Your task to perform on an android device: Search for Mexican restaurants on Maps Image 0: 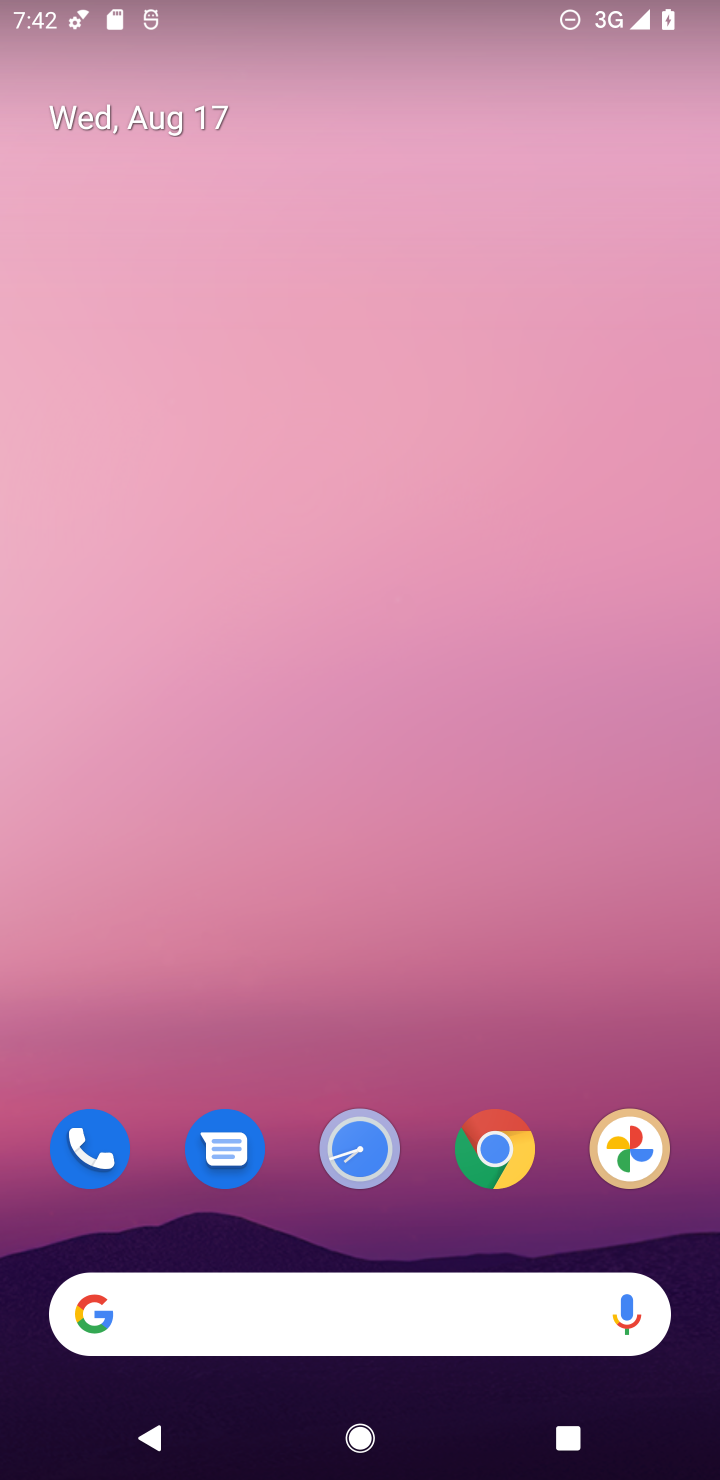
Step 0: drag from (434, 1230) to (376, 369)
Your task to perform on an android device: Search for Mexican restaurants on Maps Image 1: 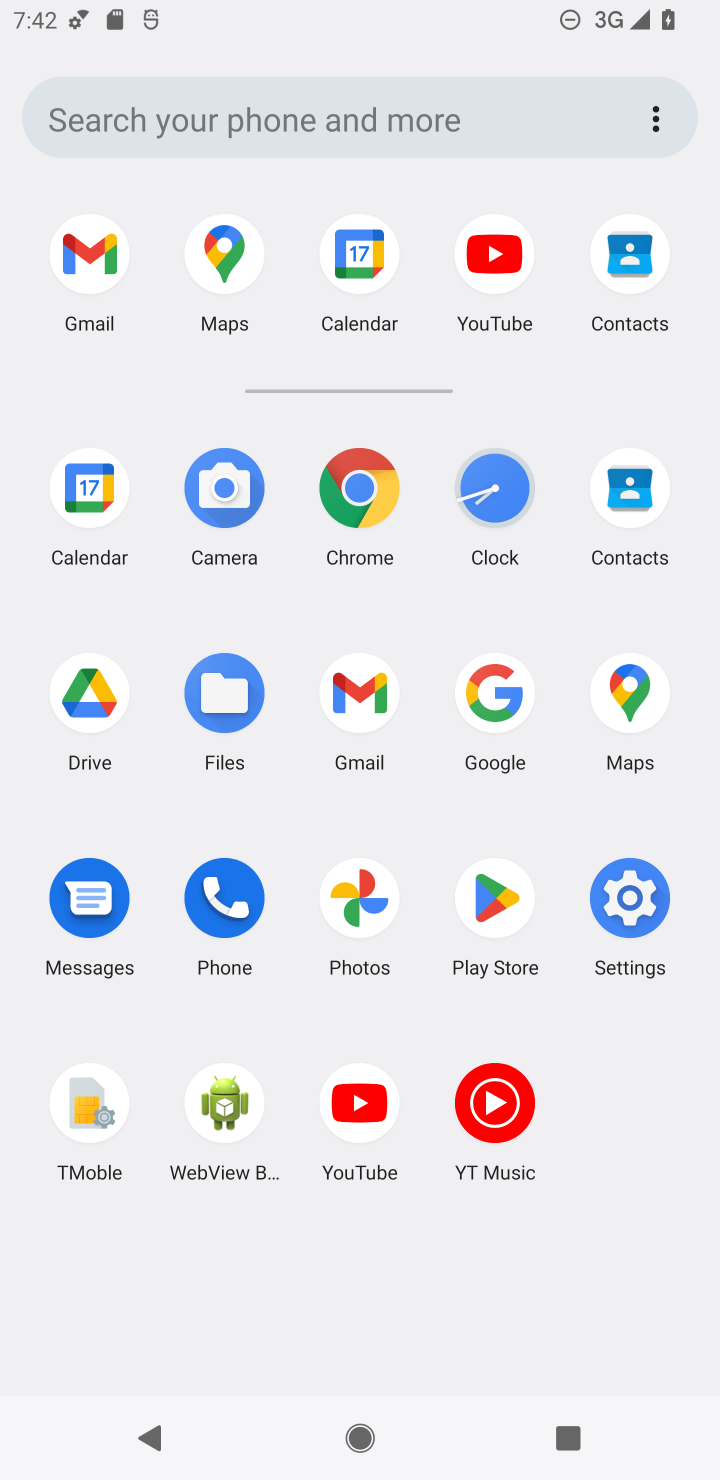
Step 1: click (227, 247)
Your task to perform on an android device: Search for Mexican restaurants on Maps Image 2: 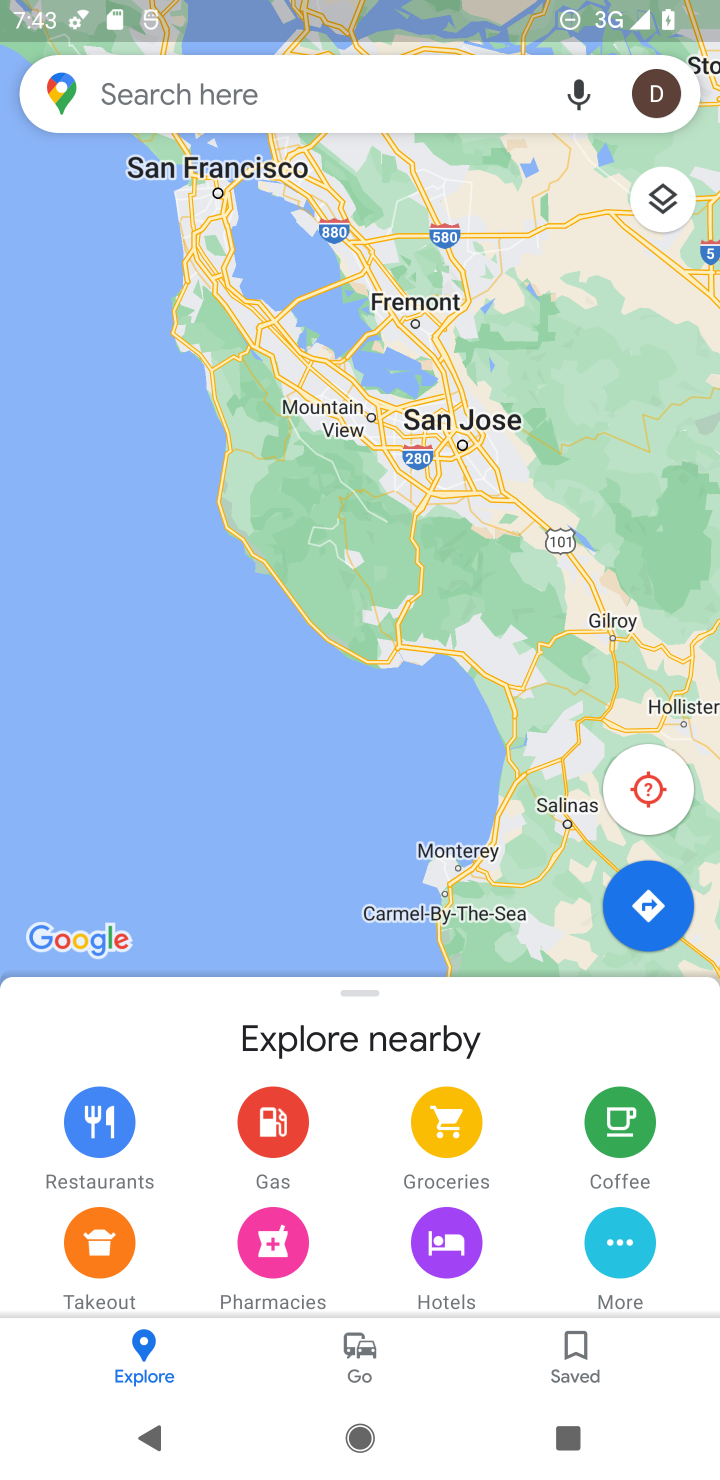
Step 2: click (228, 87)
Your task to perform on an android device: Search for Mexican restaurants on Maps Image 3: 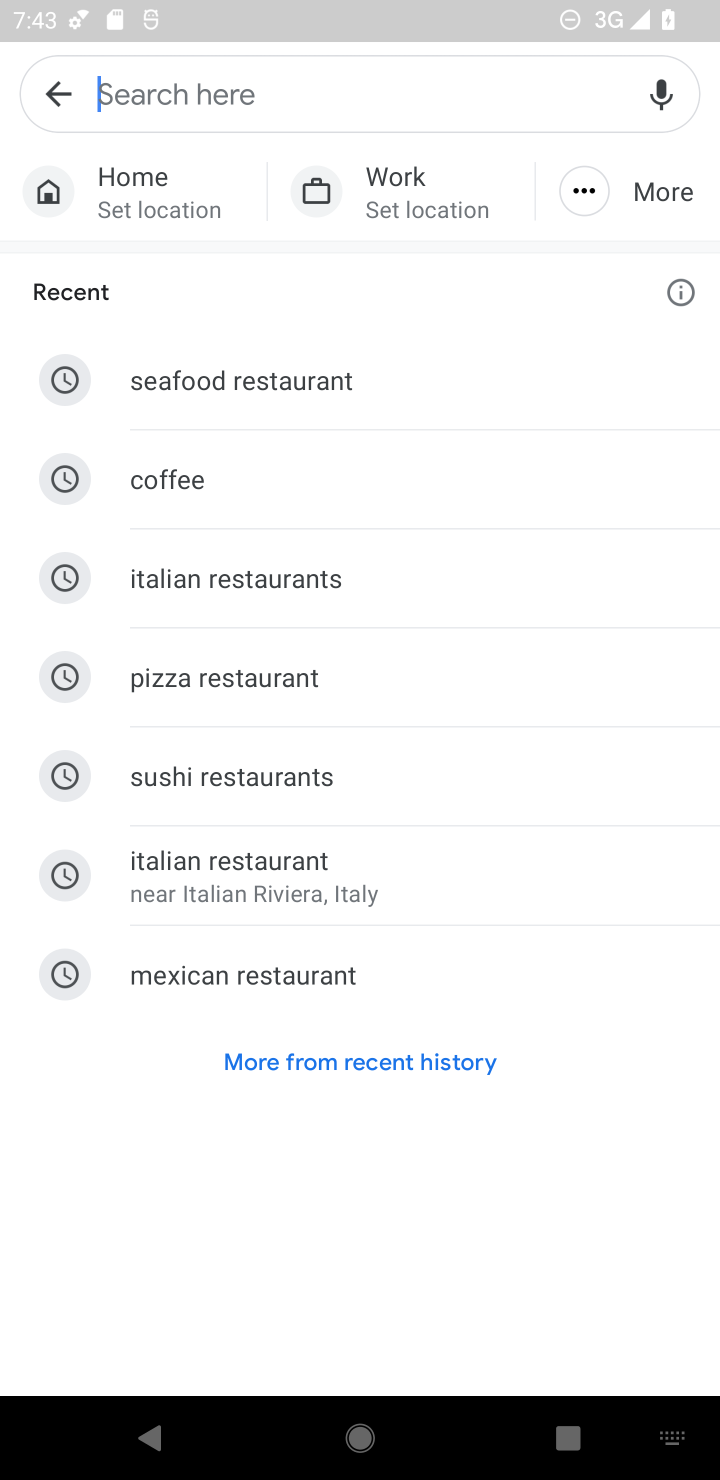
Step 3: click (278, 972)
Your task to perform on an android device: Search for Mexican restaurants on Maps Image 4: 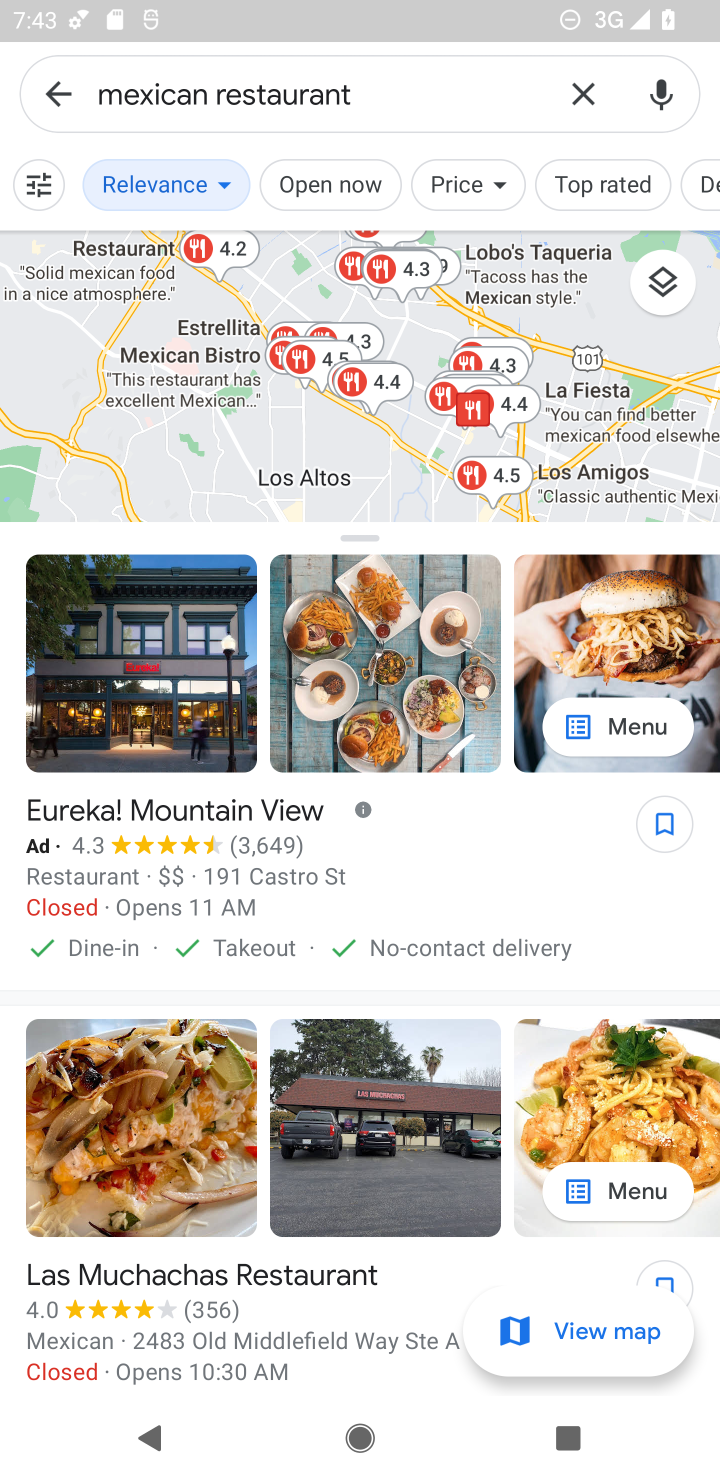
Step 4: task complete